Your task to perform on an android device: toggle wifi Image 0: 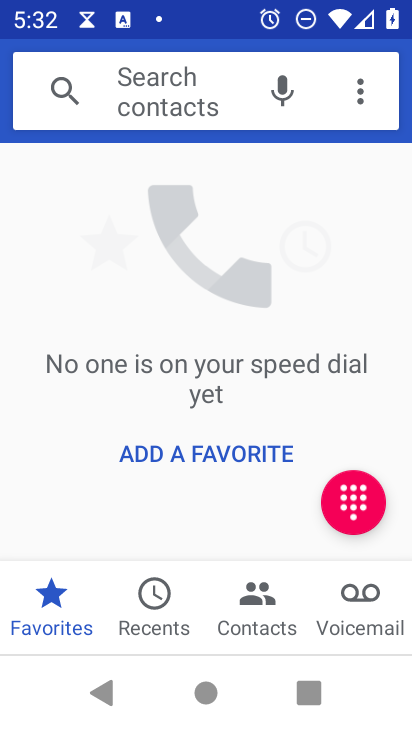
Step 0: press home button
Your task to perform on an android device: toggle wifi Image 1: 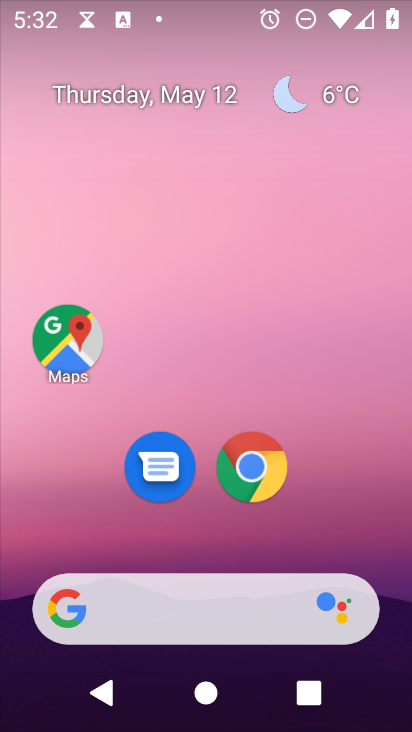
Step 1: drag from (311, 599) to (301, 97)
Your task to perform on an android device: toggle wifi Image 2: 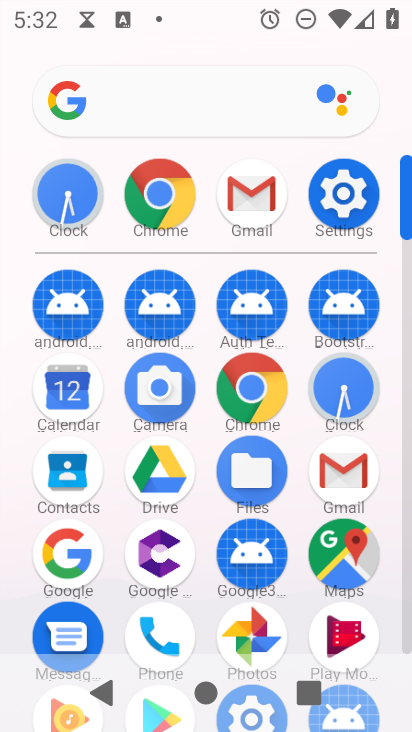
Step 2: click (343, 193)
Your task to perform on an android device: toggle wifi Image 3: 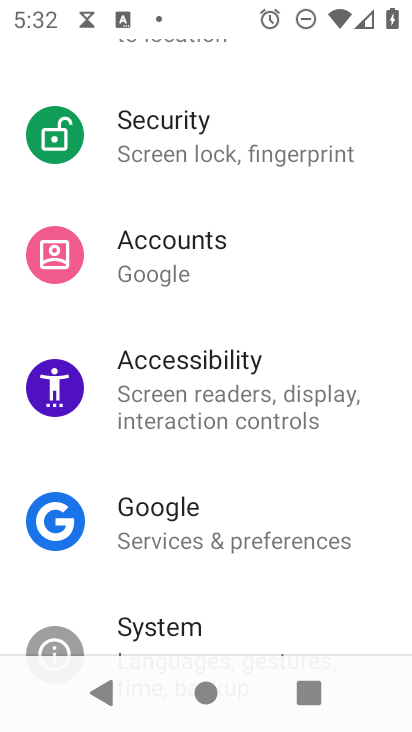
Step 3: drag from (276, 151) to (310, 628)
Your task to perform on an android device: toggle wifi Image 4: 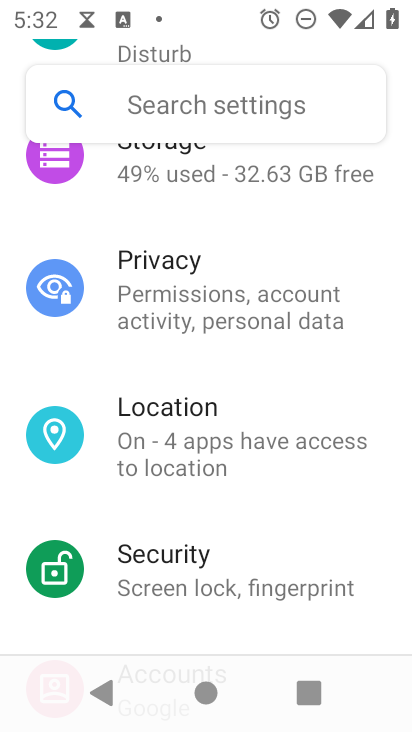
Step 4: drag from (258, 224) to (355, 676)
Your task to perform on an android device: toggle wifi Image 5: 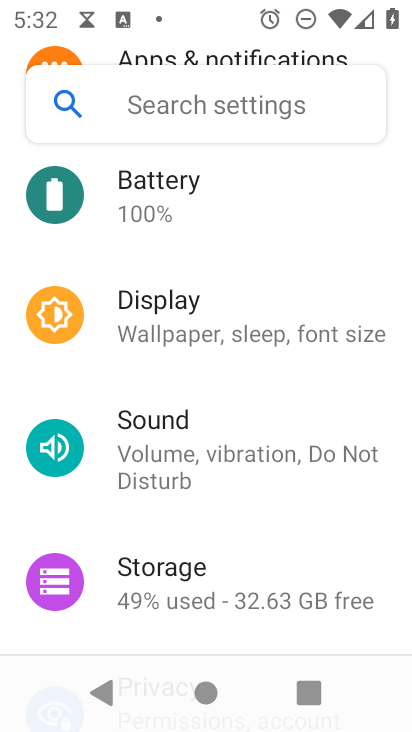
Step 5: drag from (304, 263) to (326, 727)
Your task to perform on an android device: toggle wifi Image 6: 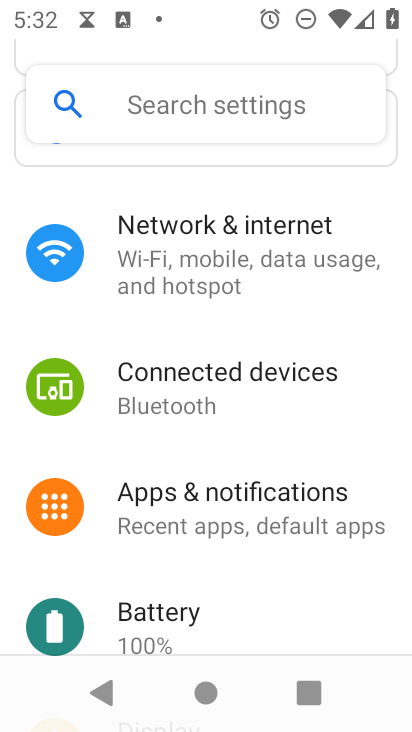
Step 6: click (249, 273)
Your task to perform on an android device: toggle wifi Image 7: 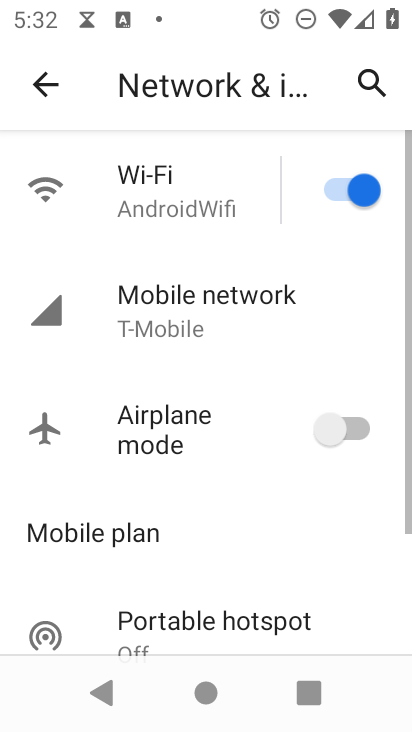
Step 7: click (340, 195)
Your task to perform on an android device: toggle wifi Image 8: 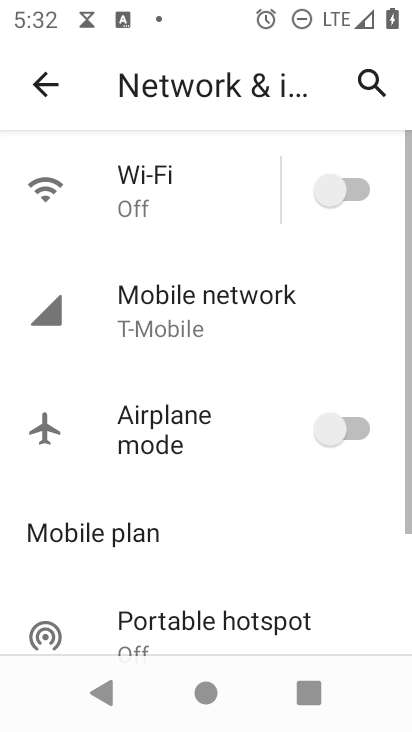
Step 8: task complete